Your task to perform on an android device: change the clock display to digital Image 0: 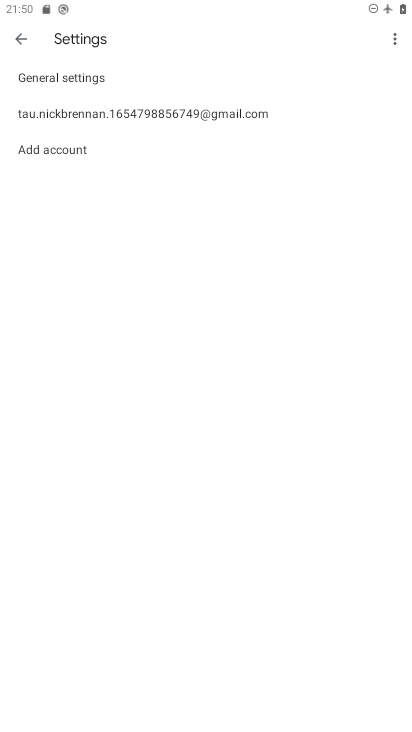
Step 0: press home button
Your task to perform on an android device: change the clock display to digital Image 1: 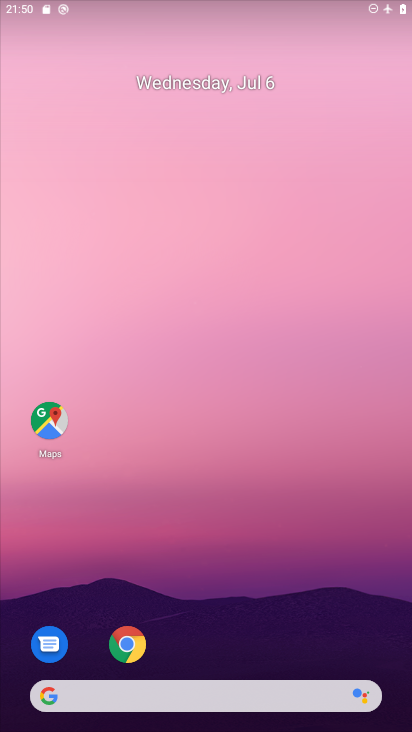
Step 1: drag from (220, 623) to (220, 244)
Your task to perform on an android device: change the clock display to digital Image 2: 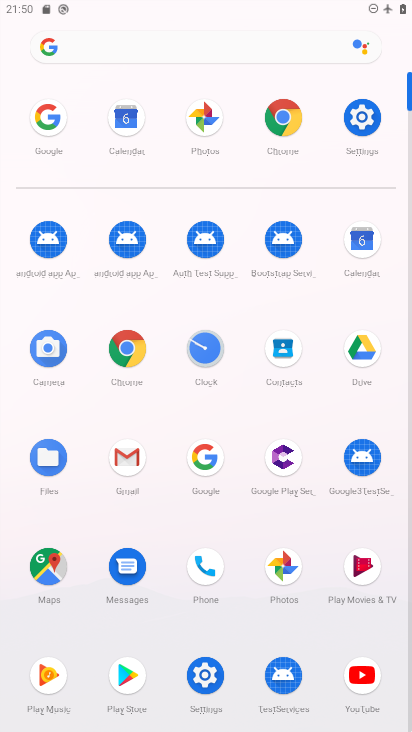
Step 2: click (202, 344)
Your task to perform on an android device: change the clock display to digital Image 3: 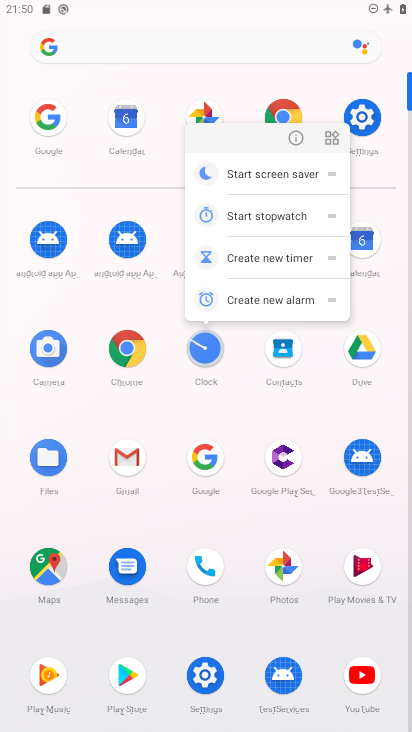
Step 3: click (224, 354)
Your task to perform on an android device: change the clock display to digital Image 4: 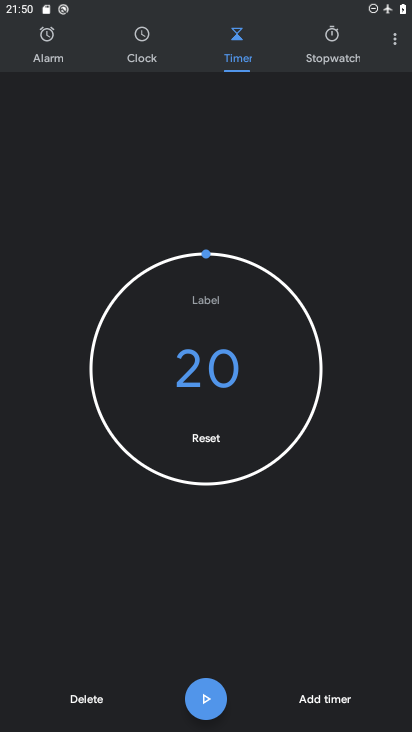
Step 4: click (386, 41)
Your task to perform on an android device: change the clock display to digital Image 5: 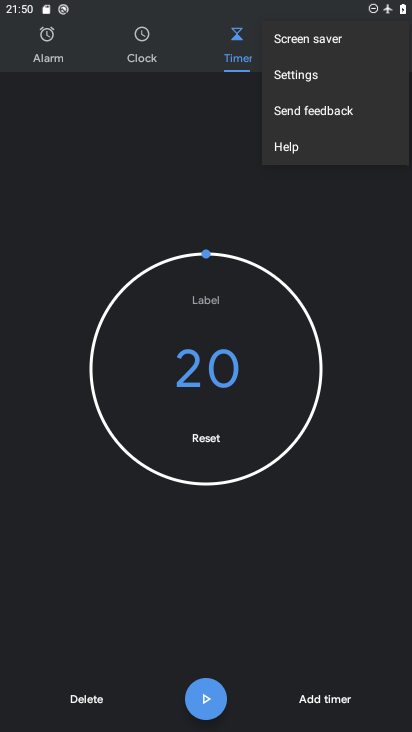
Step 5: click (342, 78)
Your task to perform on an android device: change the clock display to digital Image 6: 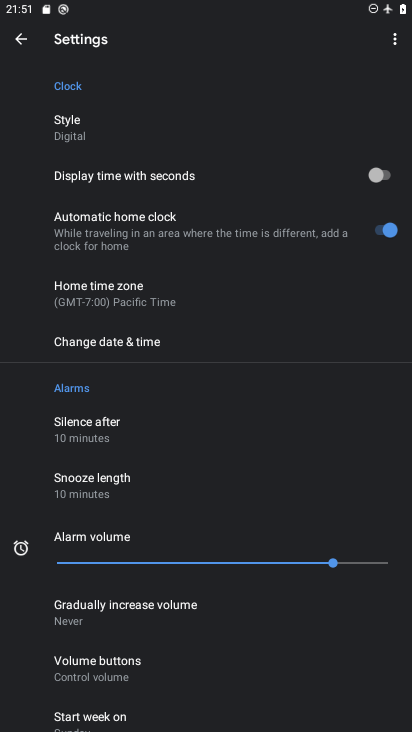
Step 6: press home button
Your task to perform on an android device: change the clock display to digital Image 7: 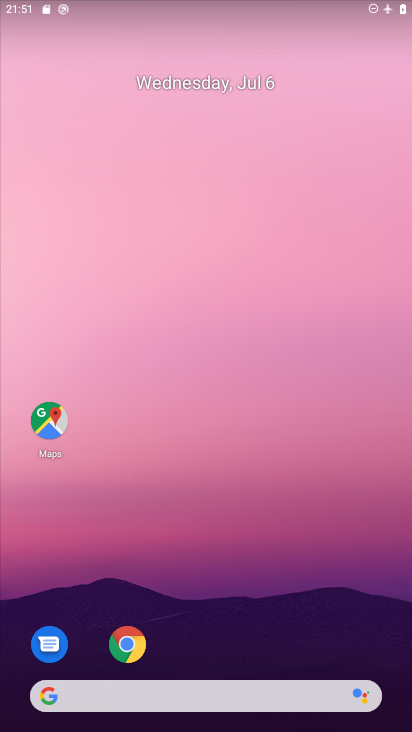
Step 7: drag from (192, 636) to (212, 195)
Your task to perform on an android device: change the clock display to digital Image 8: 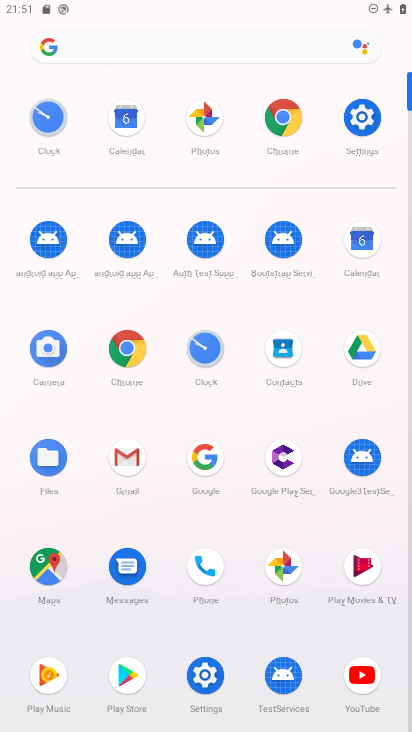
Step 8: click (217, 372)
Your task to perform on an android device: change the clock display to digital Image 9: 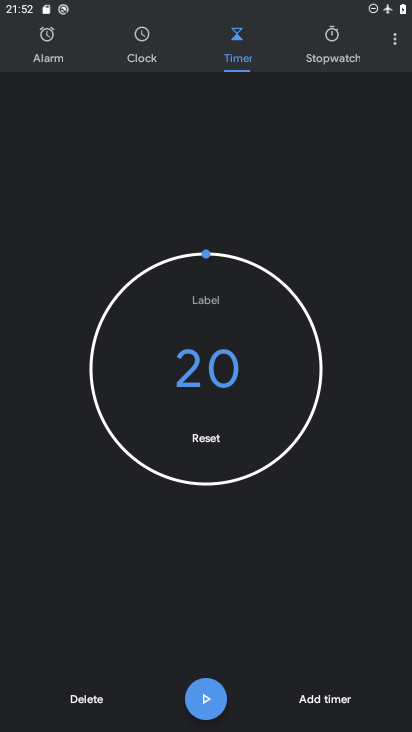
Step 9: click (389, 30)
Your task to perform on an android device: change the clock display to digital Image 10: 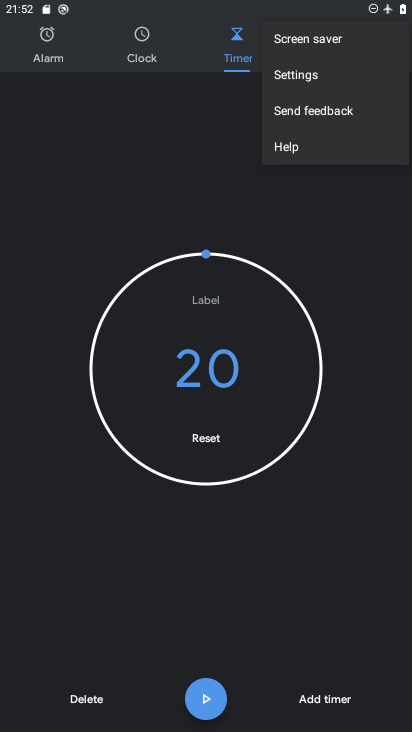
Step 10: click (315, 73)
Your task to perform on an android device: change the clock display to digital Image 11: 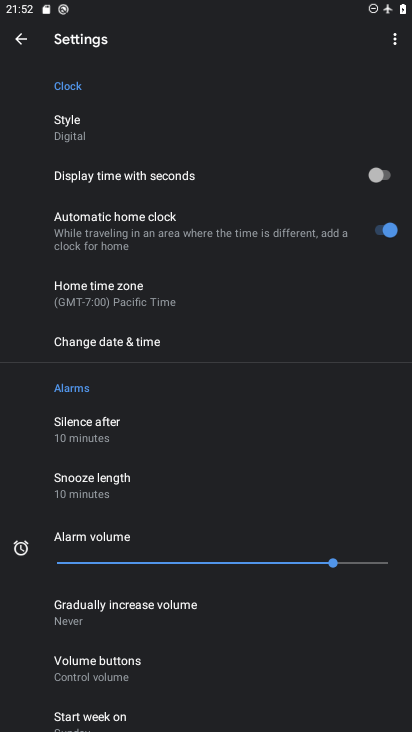
Step 11: task complete